Your task to perform on an android device: turn off smart reply in the gmail app Image 0: 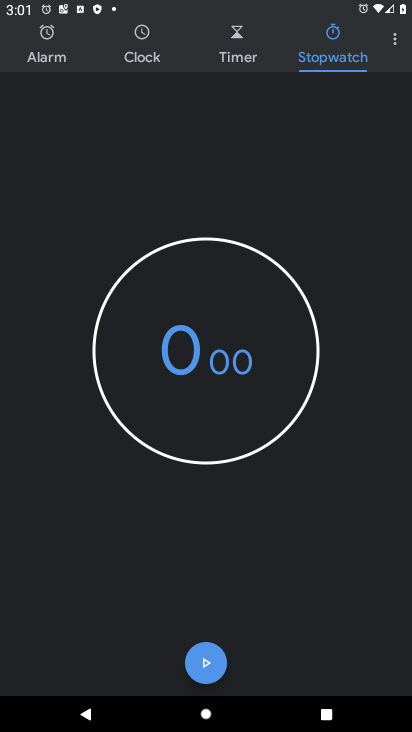
Step 0: press home button
Your task to perform on an android device: turn off smart reply in the gmail app Image 1: 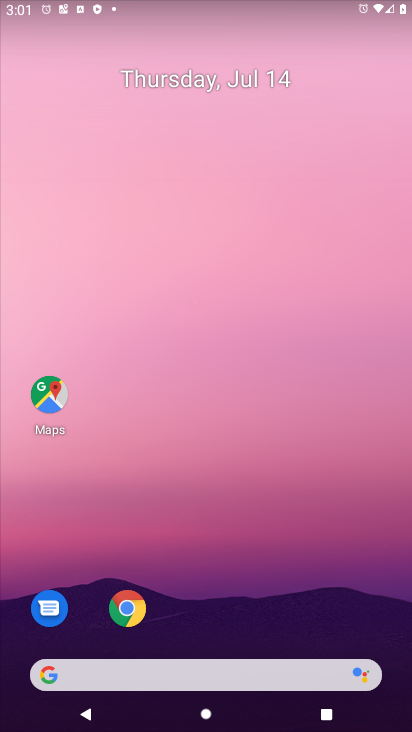
Step 1: drag from (342, 633) to (311, 133)
Your task to perform on an android device: turn off smart reply in the gmail app Image 2: 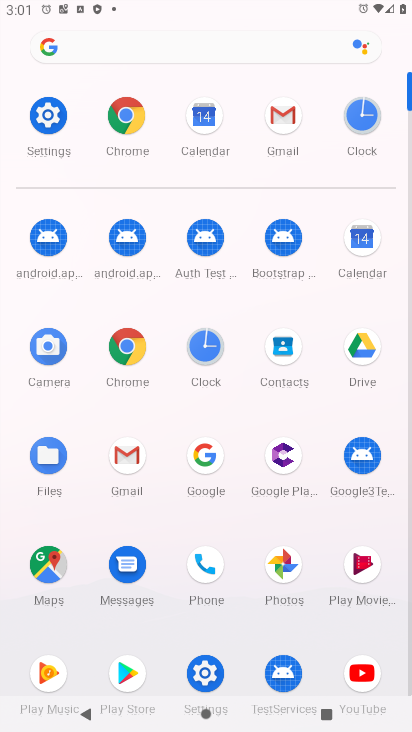
Step 2: click (125, 454)
Your task to perform on an android device: turn off smart reply in the gmail app Image 3: 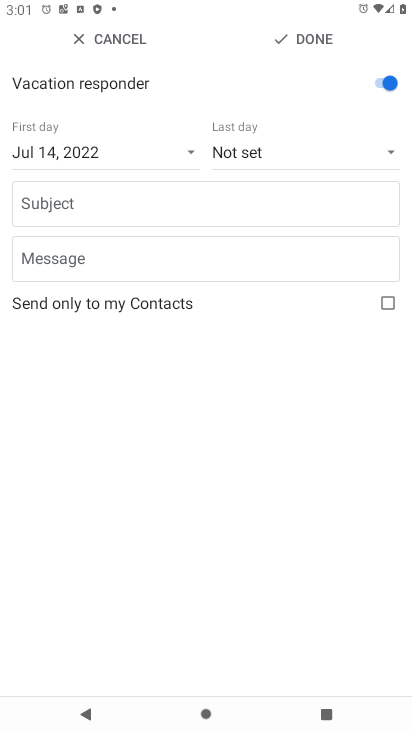
Step 3: press back button
Your task to perform on an android device: turn off smart reply in the gmail app Image 4: 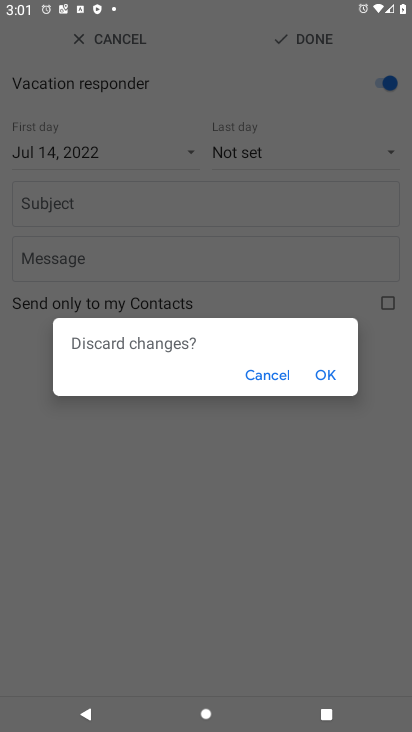
Step 4: click (329, 373)
Your task to perform on an android device: turn off smart reply in the gmail app Image 5: 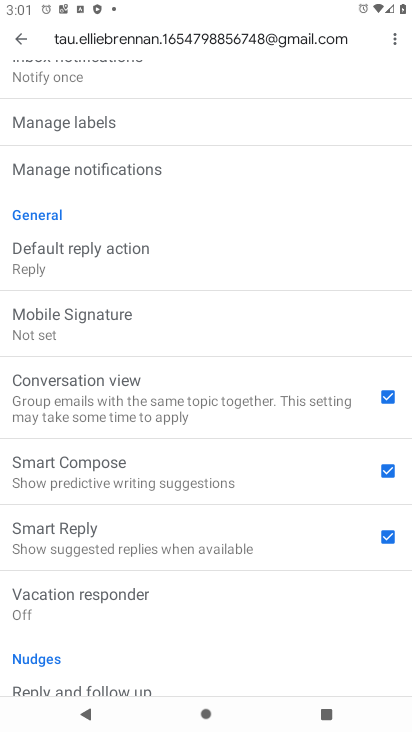
Step 5: click (385, 538)
Your task to perform on an android device: turn off smart reply in the gmail app Image 6: 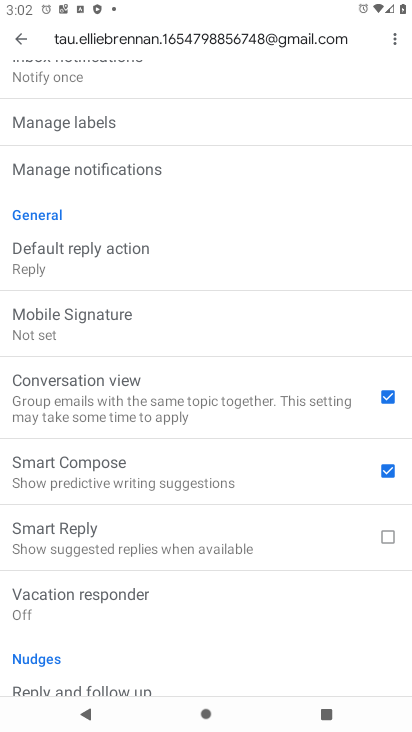
Step 6: task complete